Your task to perform on an android device: Go to ESPN.com Image 0: 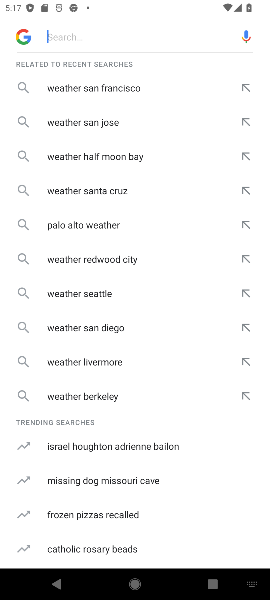
Step 0: press home button
Your task to perform on an android device: Go to ESPN.com Image 1: 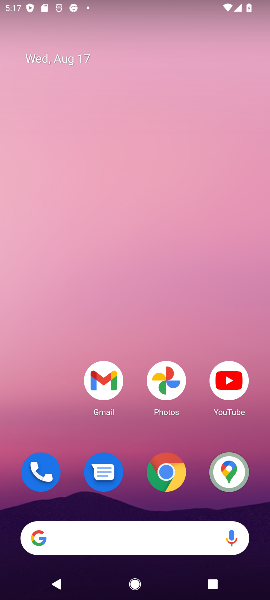
Step 1: click (156, 470)
Your task to perform on an android device: Go to ESPN.com Image 2: 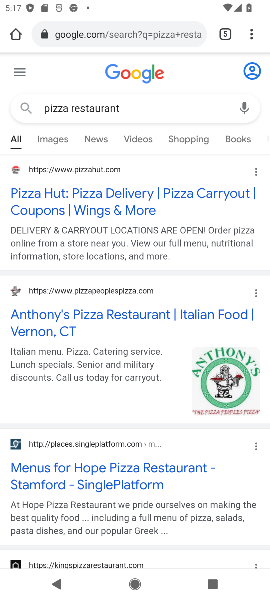
Step 2: click (223, 37)
Your task to perform on an android device: Go to ESPN.com Image 3: 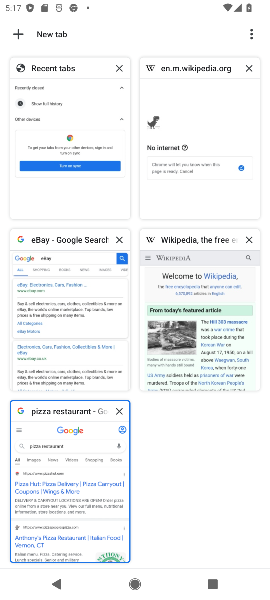
Step 3: click (23, 34)
Your task to perform on an android device: Go to ESPN.com Image 4: 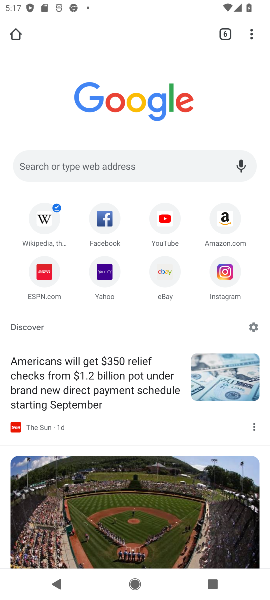
Step 4: click (125, 162)
Your task to perform on an android device: Go to ESPN.com Image 5: 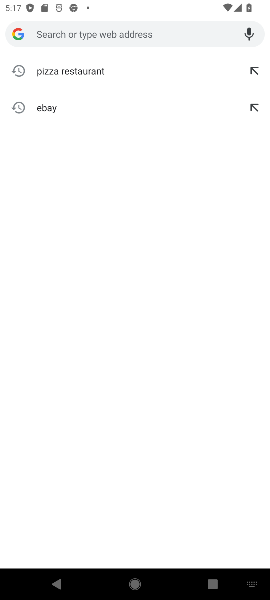
Step 5: type "ESPN.com"
Your task to perform on an android device: Go to ESPN.com Image 6: 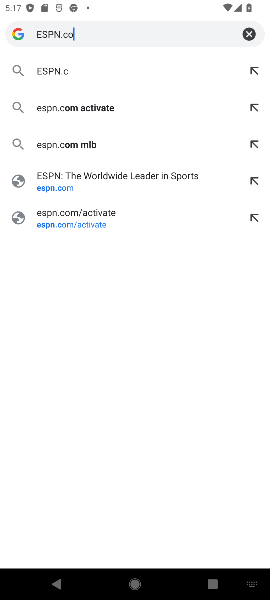
Step 6: type ""
Your task to perform on an android device: Go to ESPN.com Image 7: 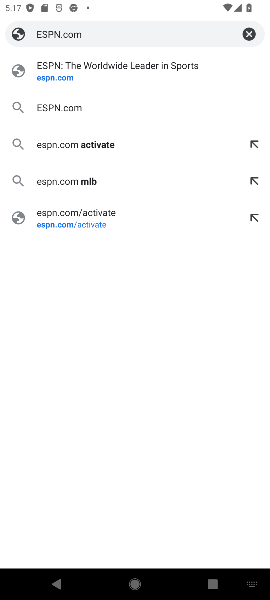
Step 7: click (88, 77)
Your task to perform on an android device: Go to ESPN.com Image 8: 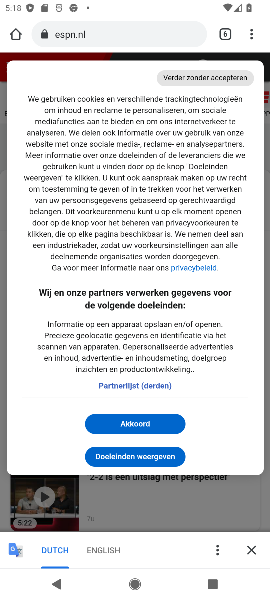
Step 8: task complete